Your task to perform on an android device: change the upload size in google photos Image 0: 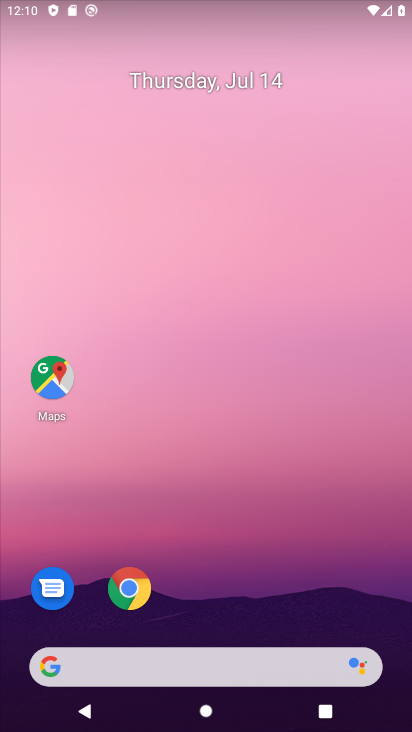
Step 0: drag from (257, 623) to (231, 224)
Your task to perform on an android device: change the upload size in google photos Image 1: 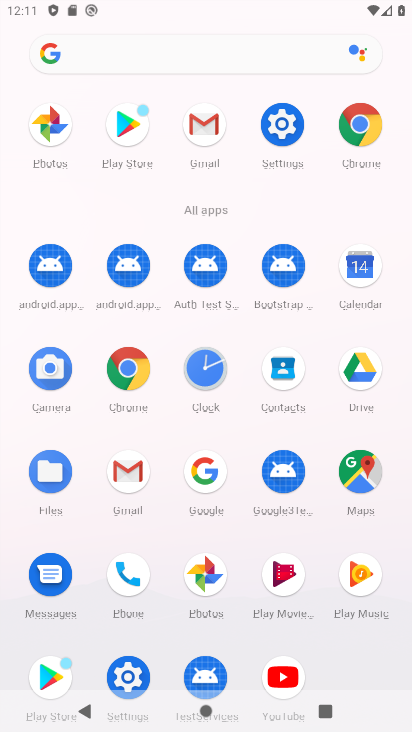
Step 1: click (198, 586)
Your task to perform on an android device: change the upload size in google photos Image 2: 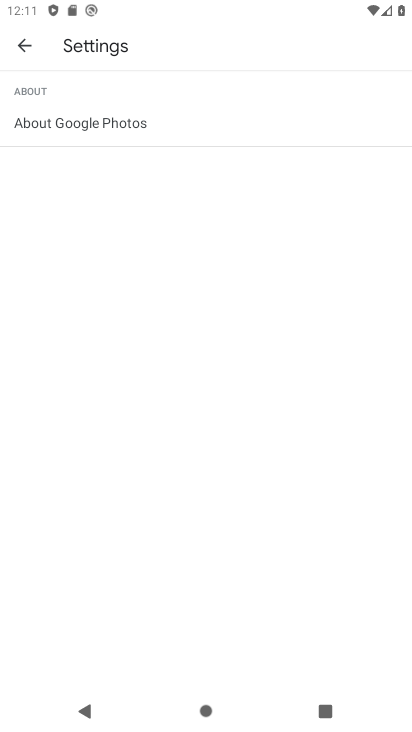
Step 2: click (26, 57)
Your task to perform on an android device: change the upload size in google photos Image 3: 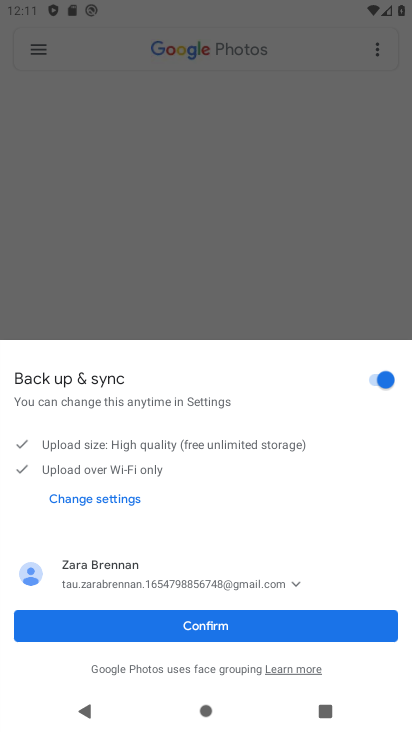
Step 3: click (100, 625)
Your task to perform on an android device: change the upload size in google photos Image 4: 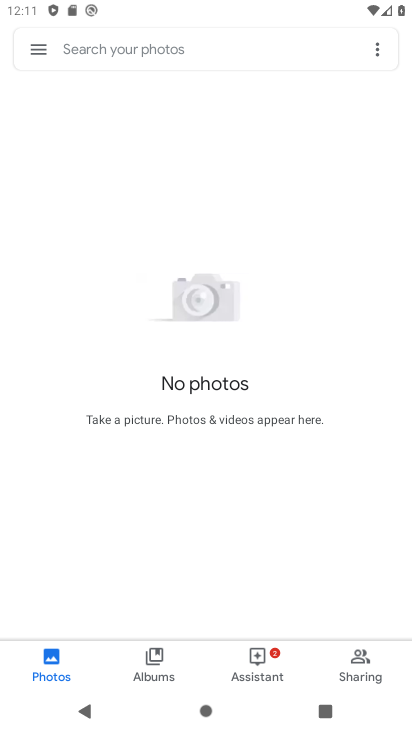
Step 4: click (30, 50)
Your task to perform on an android device: change the upload size in google photos Image 5: 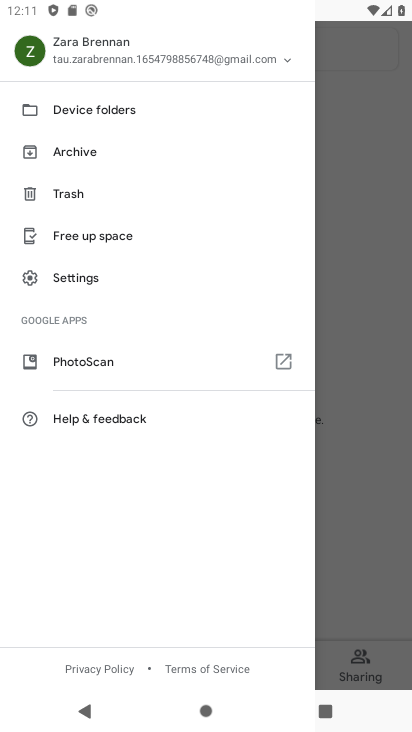
Step 5: click (86, 284)
Your task to perform on an android device: change the upload size in google photos Image 6: 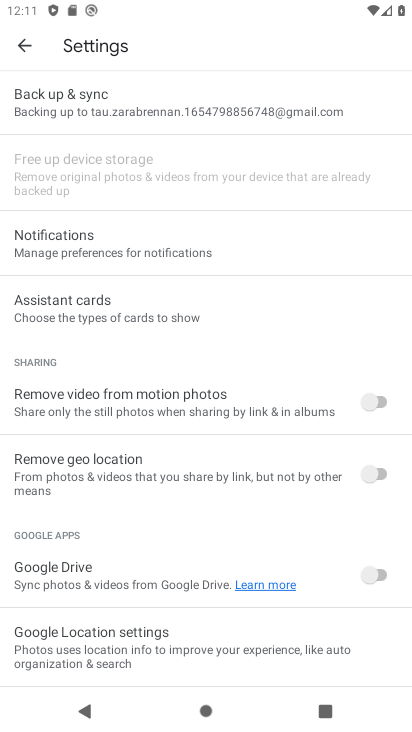
Step 6: click (173, 101)
Your task to perform on an android device: change the upload size in google photos Image 7: 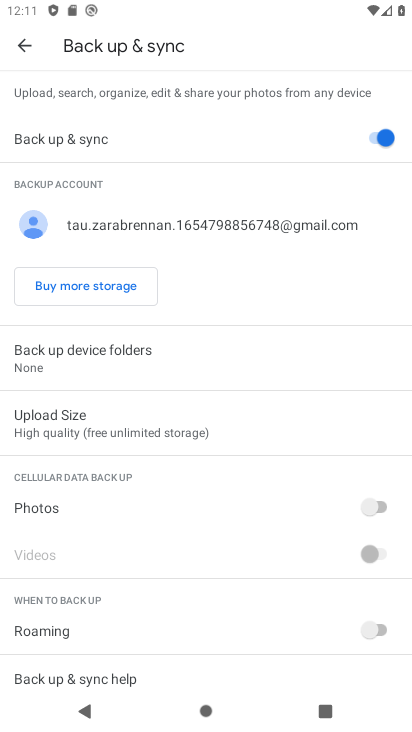
Step 7: click (133, 435)
Your task to perform on an android device: change the upload size in google photos Image 8: 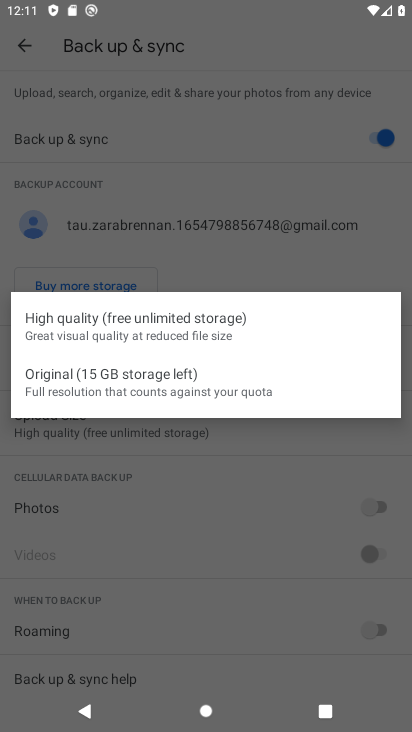
Step 8: click (136, 340)
Your task to perform on an android device: change the upload size in google photos Image 9: 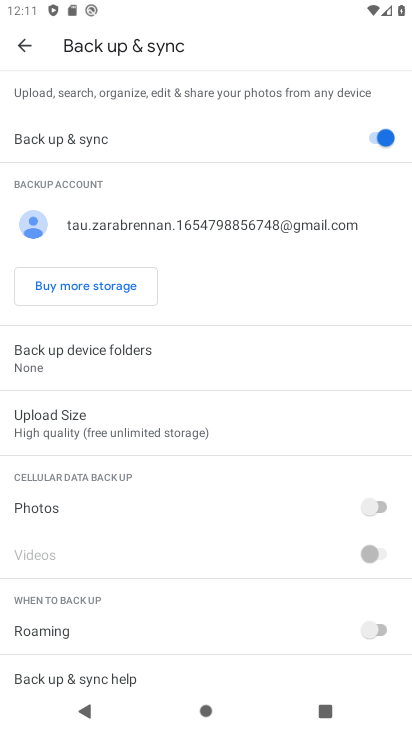
Step 9: task complete